Your task to perform on an android device: check google app version Image 0: 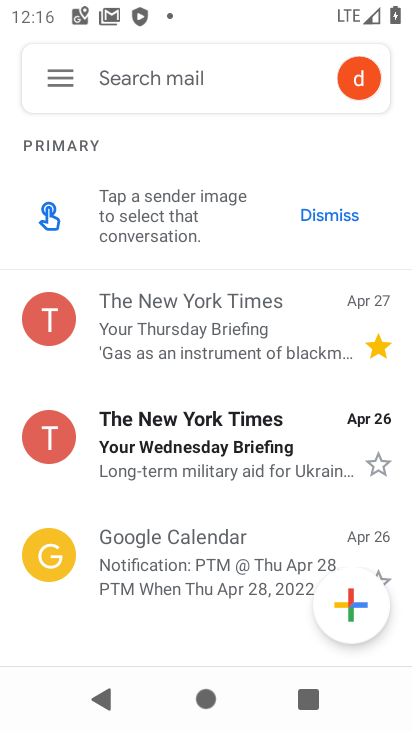
Step 0: press home button
Your task to perform on an android device: check google app version Image 1: 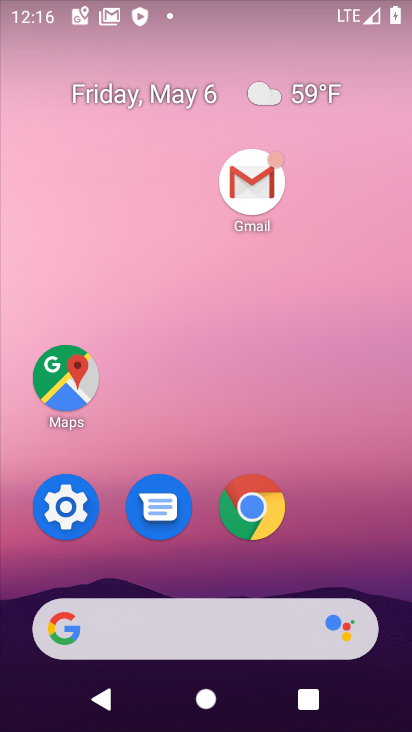
Step 1: drag from (351, 500) to (304, 78)
Your task to perform on an android device: check google app version Image 2: 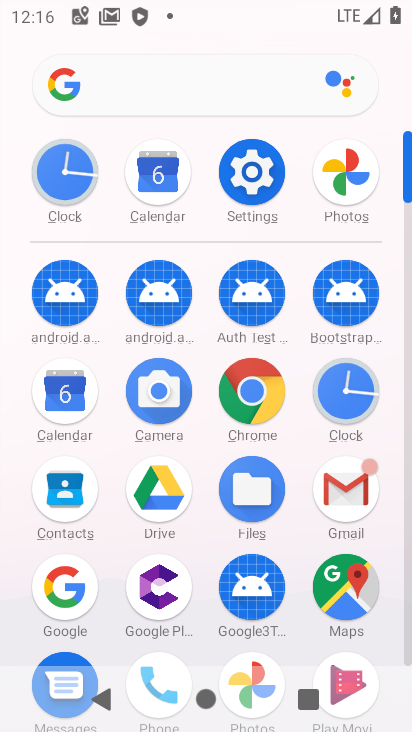
Step 2: click (65, 588)
Your task to perform on an android device: check google app version Image 3: 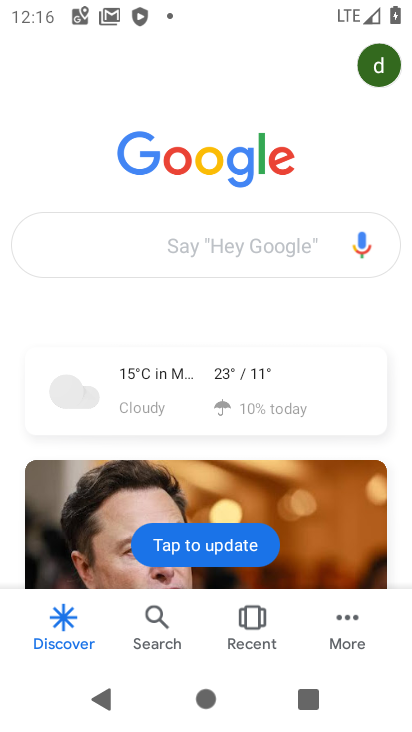
Step 3: click (350, 617)
Your task to perform on an android device: check google app version Image 4: 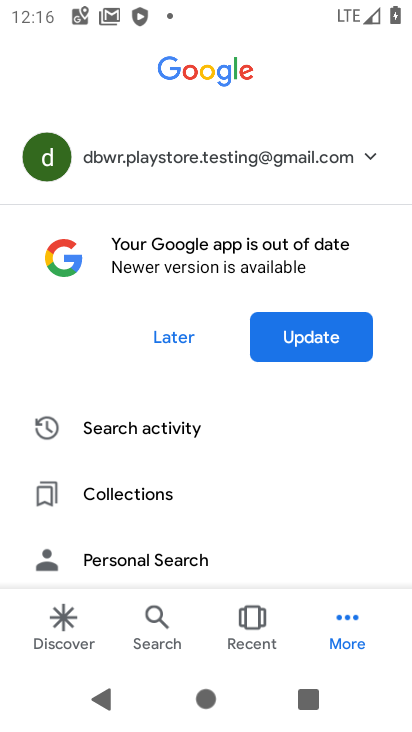
Step 4: drag from (228, 451) to (236, 77)
Your task to perform on an android device: check google app version Image 5: 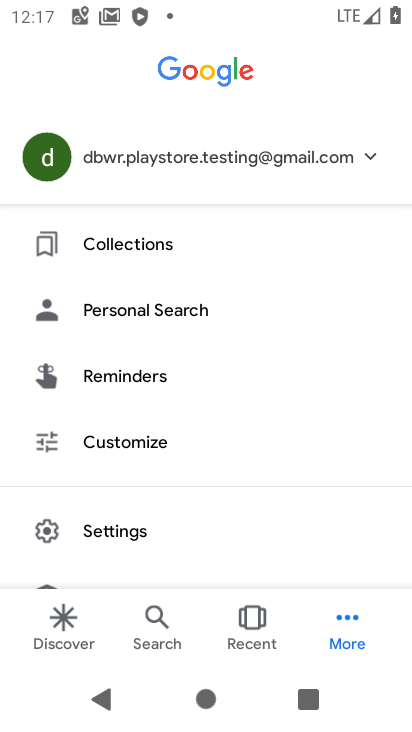
Step 5: click (98, 533)
Your task to perform on an android device: check google app version Image 6: 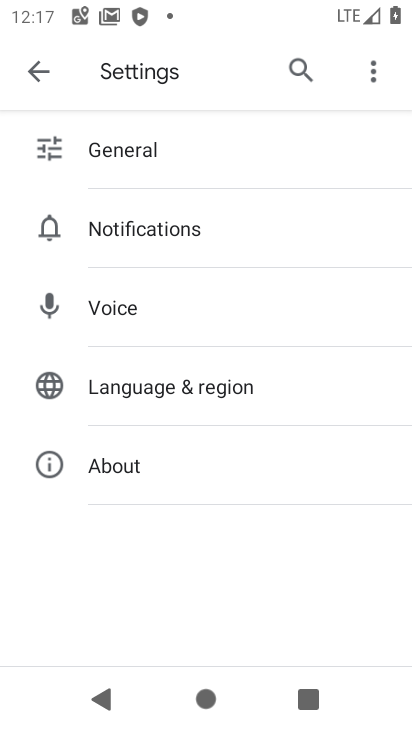
Step 6: click (115, 461)
Your task to perform on an android device: check google app version Image 7: 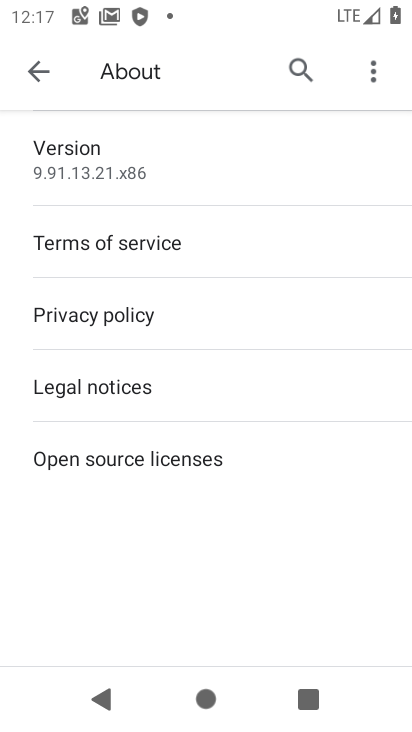
Step 7: task complete